Your task to perform on an android device: open chrome and create a bookmark for the current page Image 0: 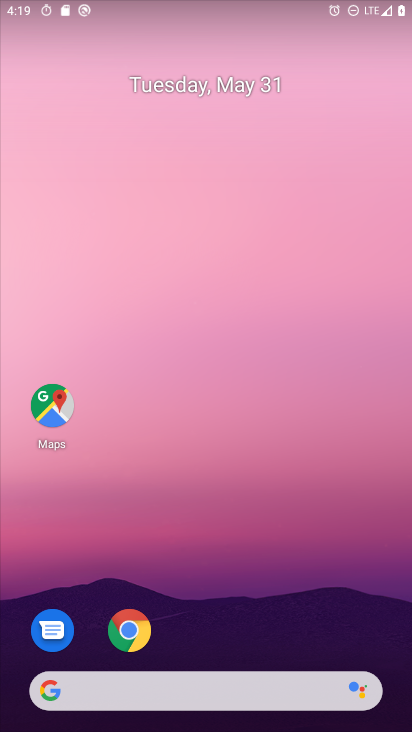
Step 0: drag from (196, 708) to (243, 74)
Your task to perform on an android device: open chrome and create a bookmark for the current page Image 1: 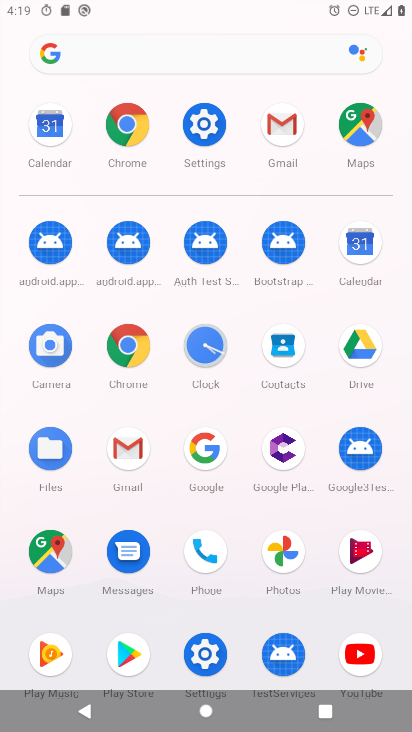
Step 1: click (140, 338)
Your task to perform on an android device: open chrome and create a bookmark for the current page Image 2: 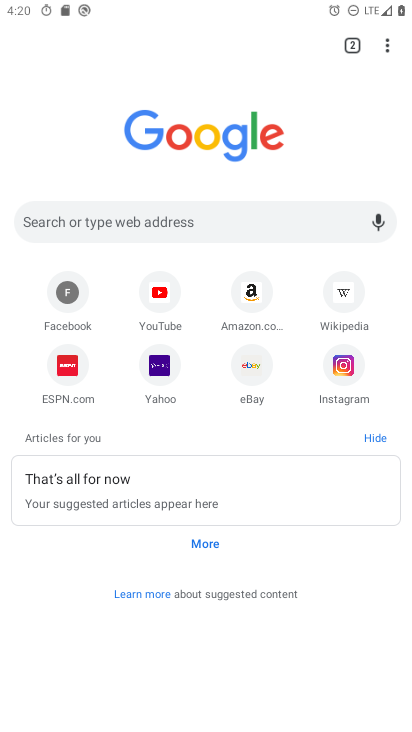
Step 2: task complete